Your task to perform on an android device: turn off notifications settings in the gmail app Image 0: 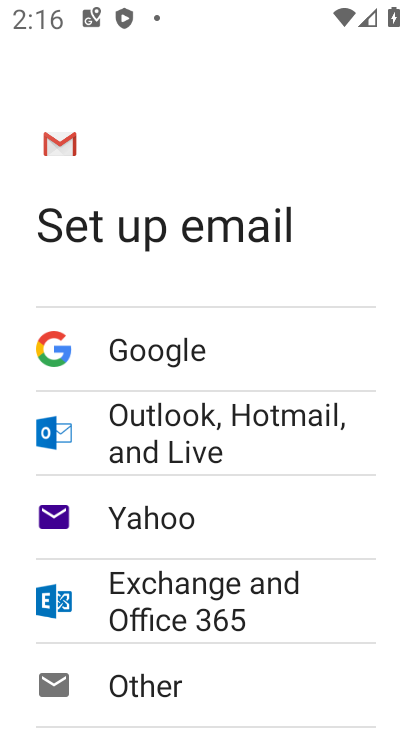
Step 0: press home button
Your task to perform on an android device: turn off notifications settings in the gmail app Image 1: 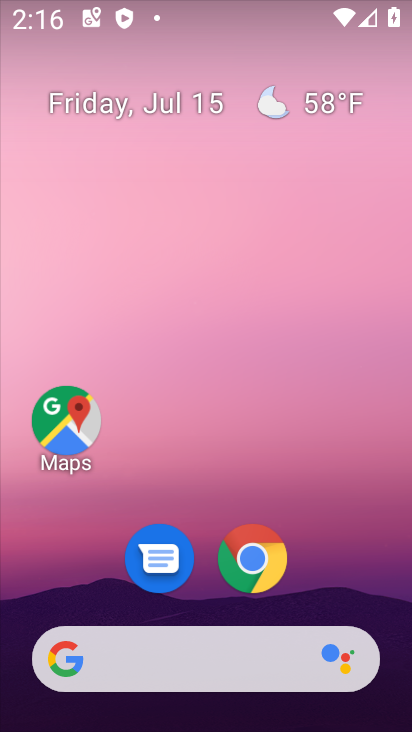
Step 1: drag from (354, 575) to (375, 122)
Your task to perform on an android device: turn off notifications settings in the gmail app Image 2: 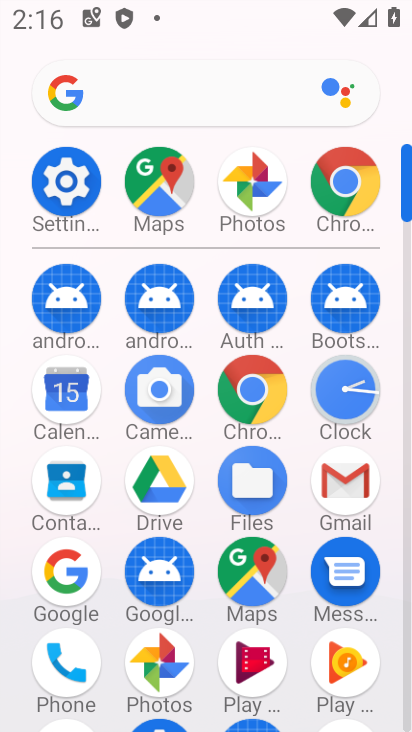
Step 2: click (352, 482)
Your task to perform on an android device: turn off notifications settings in the gmail app Image 3: 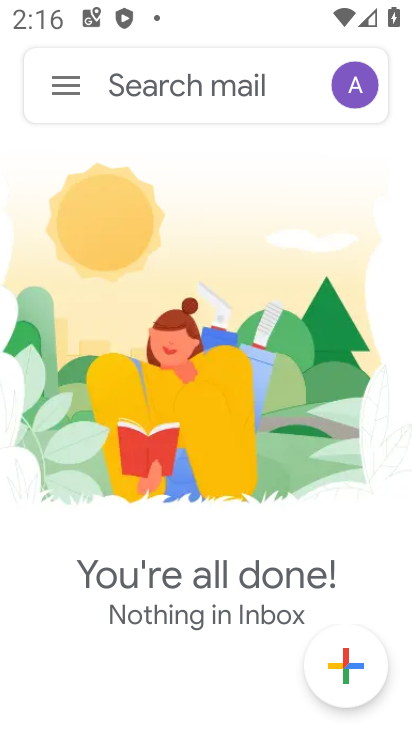
Step 3: click (73, 85)
Your task to perform on an android device: turn off notifications settings in the gmail app Image 4: 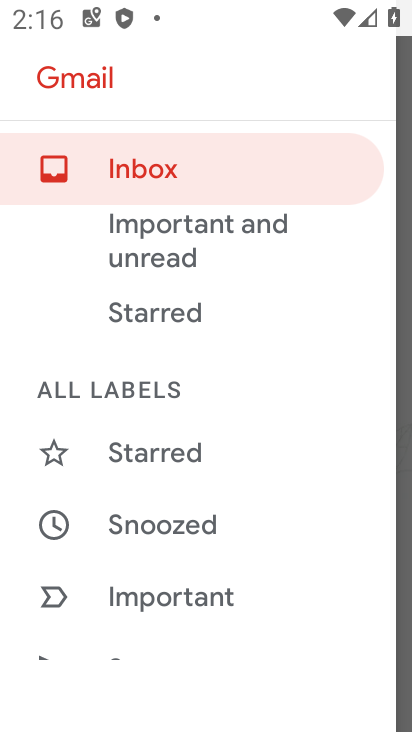
Step 4: drag from (298, 400) to (310, 353)
Your task to perform on an android device: turn off notifications settings in the gmail app Image 5: 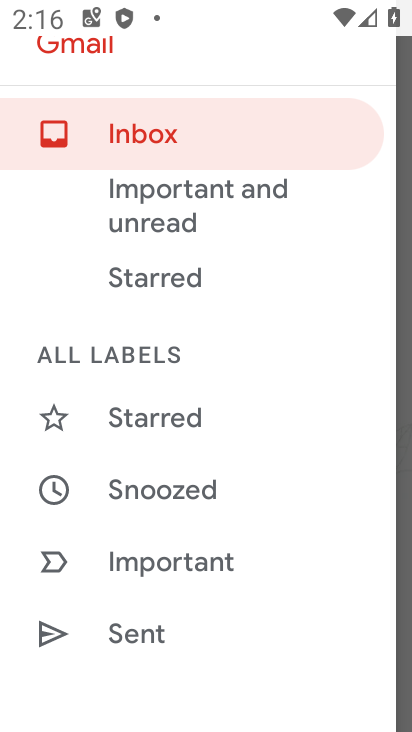
Step 5: drag from (312, 426) to (316, 313)
Your task to perform on an android device: turn off notifications settings in the gmail app Image 6: 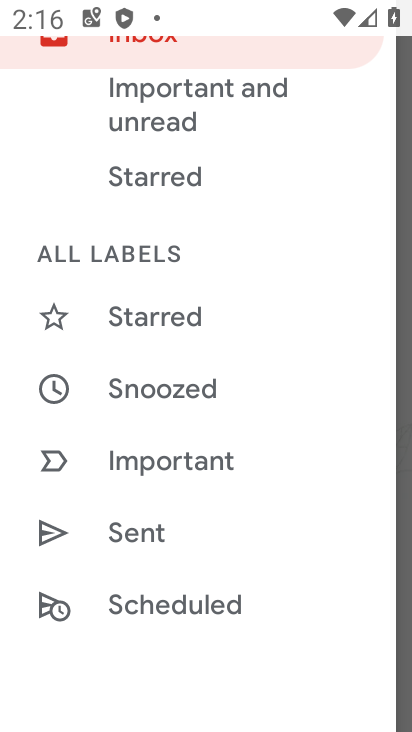
Step 6: drag from (305, 423) to (308, 356)
Your task to perform on an android device: turn off notifications settings in the gmail app Image 7: 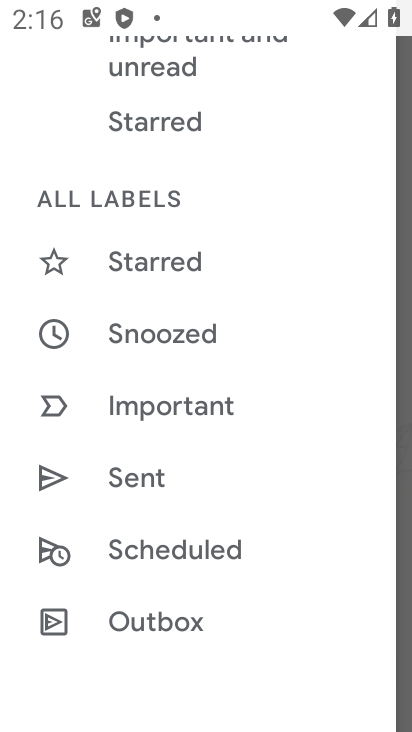
Step 7: drag from (306, 412) to (309, 357)
Your task to perform on an android device: turn off notifications settings in the gmail app Image 8: 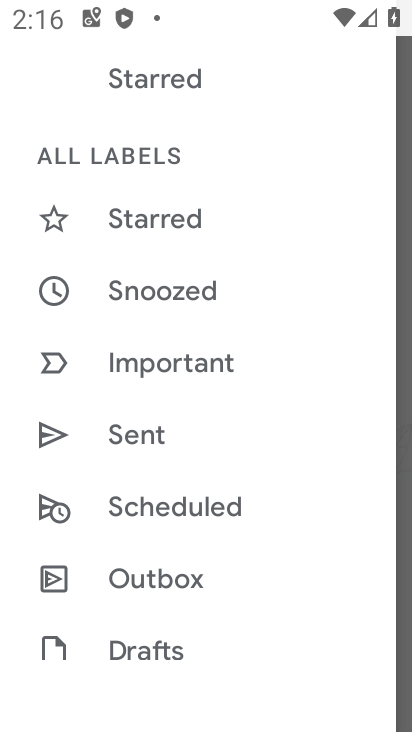
Step 8: drag from (316, 418) to (319, 341)
Your task to perform on an android device: turn off notifications settings in the gmail app Image 9: 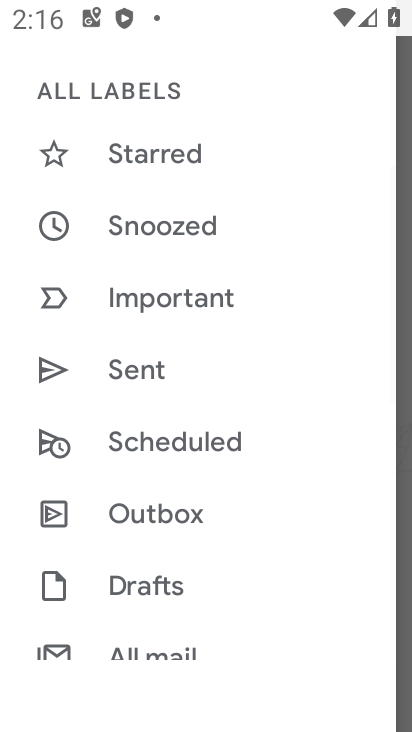
Step 9: drag from (319, 455) to (320, 365)
Your task to perform on an android device: turn off notifications settings in the gmail app Image 10: 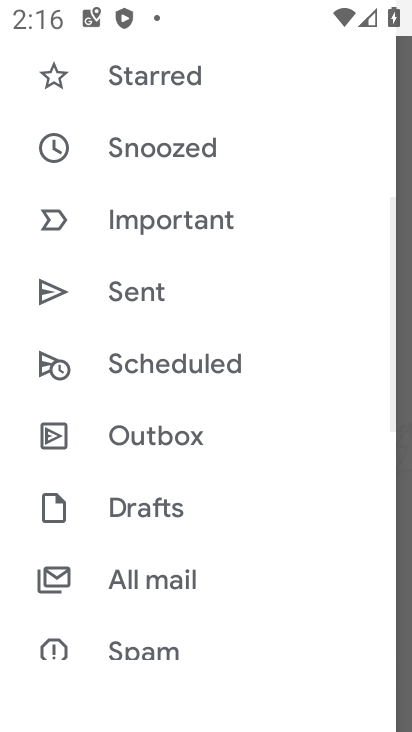
Step 10: drag from (317, 453) to (317, 362)
Your task to perform on an android device: turn off notifications settings in the gmail app Image 11: 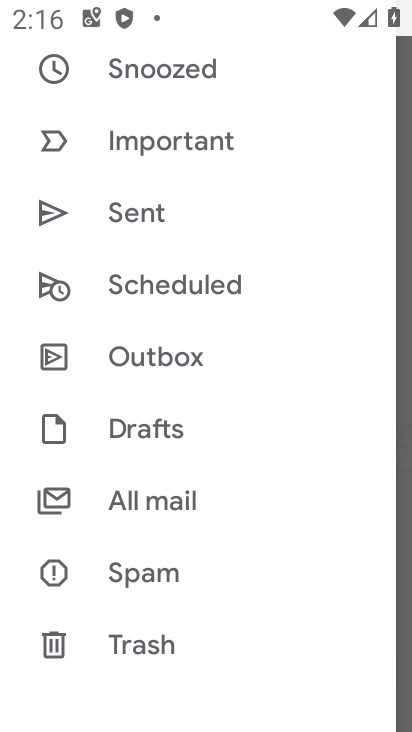
Step 11: drag from (312, 462) to (310, 342)
Your task to perform on an android device: turn off notifications settings in the gmail app Image 12: 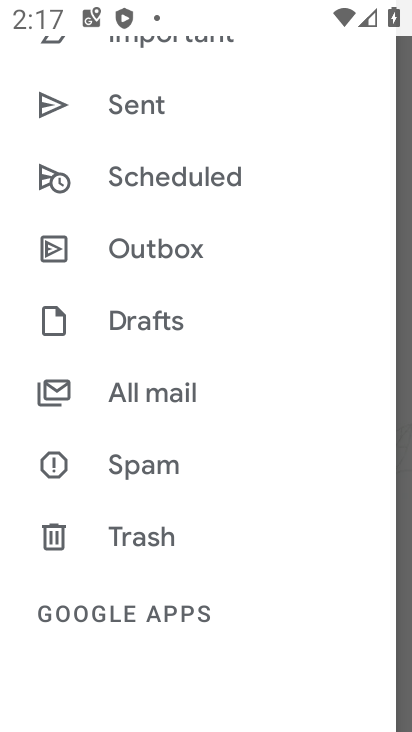
Step 12: drag from (338, 485) to (327, 378)
Your task to perform on an android device: turn off notifications settings in the gmail app Image 13: 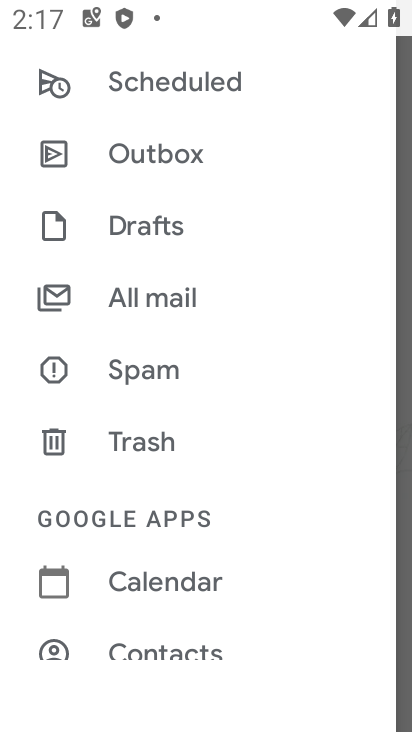
Step 13: drag from (312, 506) to (303, 377)
Your task to perform on an android device: turn off notifications settings in the gmail app Image 14: 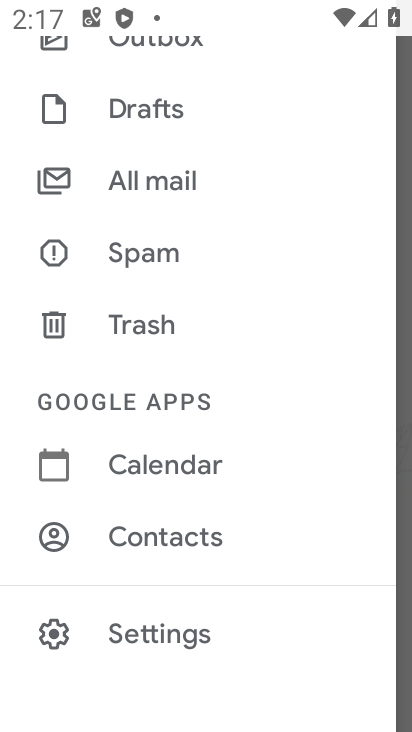
Step 14: drag from (292, 495) to (297, 387)
Your task to perform on an android device: turn off notifications settings in the gmail app Image 15: 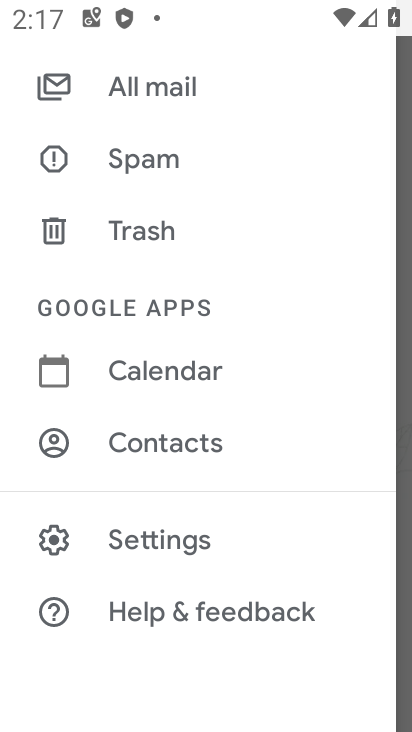
Step 15: click (261, 552)
Your task to perform on an android device: turn off notifications settings in the gmail app Image 16: 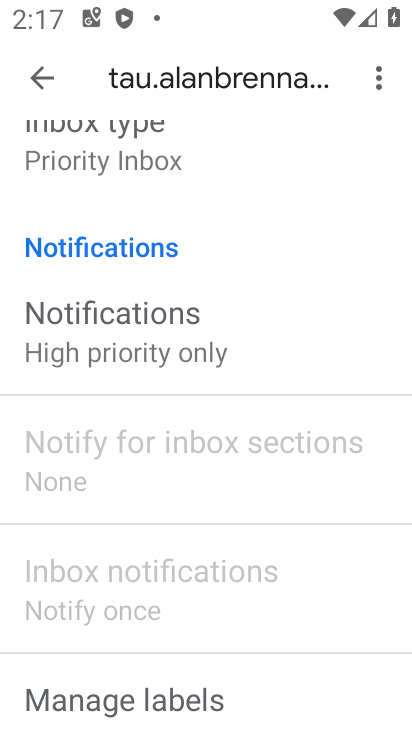
Step 16: drag from (293, 307) to (291, 406)
Your task to perform on an android device: turn off notifications settings in the gmail app Image 17: 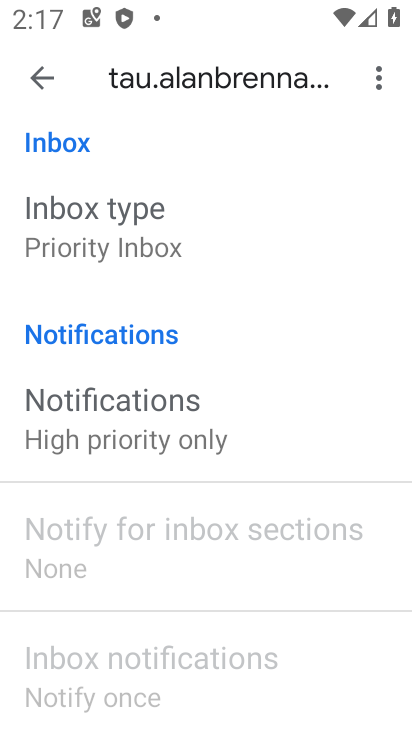
Step 17: drag from (285, 258) to (281, 507)
Your task to perform on an android device: turn off notifications settings in the gmail app Image 18: 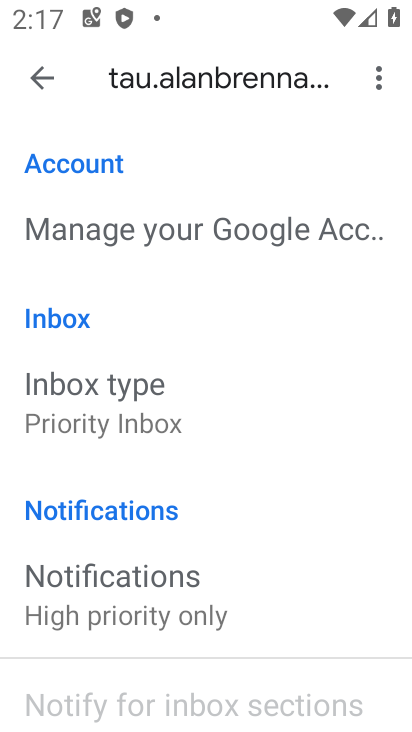
Step 18: drag from (296, 525) to (296, 421)
Your task to perform on an android device: turn off notifications settings in the gmail app Image 19: 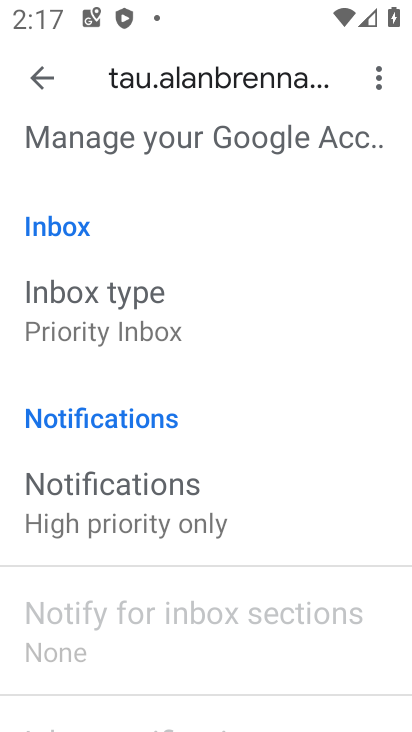
Step 19: drag from (299, 537) to (298, 419)
Your task to perform on an android device: turn off notifications settings in the gmail app Image 20: 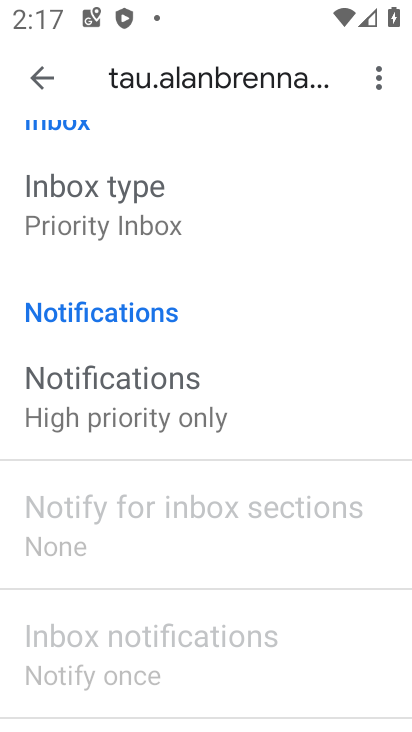
Step 20: drag from (300, 540) to (293, 399)
Your task to perform on an android device: turn off notifications settings in the gmail app Image 21: 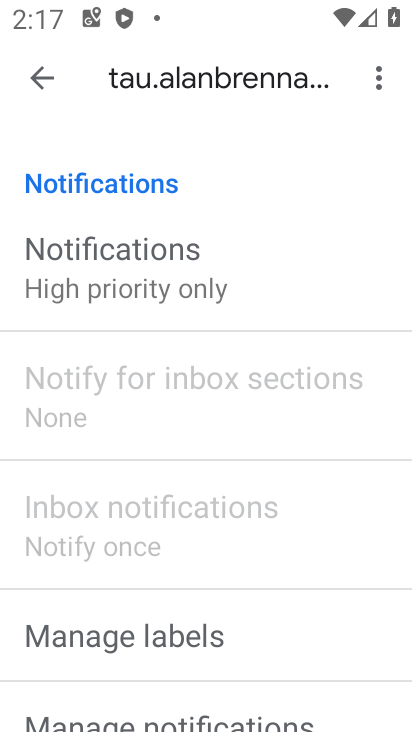
Step 21: drag from (304, 568) to (301, 456)
Your task to perform on an android device: turn off notifications settings in the gmail app Image 22: 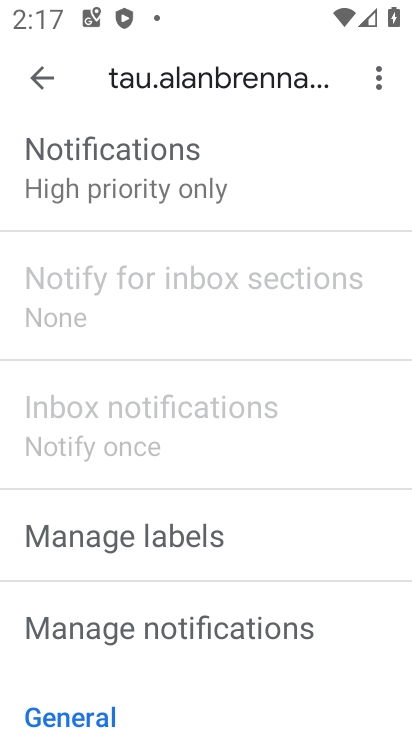
Step 22: drag from (309, 574) to (303, 431)
Your task to perform on an android device: turn off notifications settings in the gmail app Image 23: 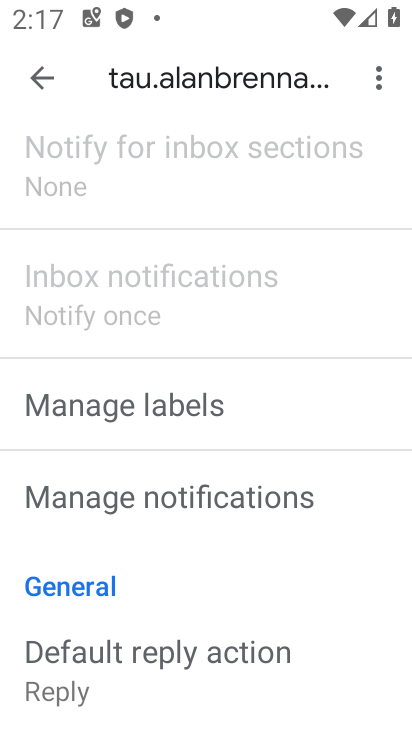
Step 23: click (292, 493)
Your task to perform on an android device: turn off notifications settings in the gmail app Image 24: 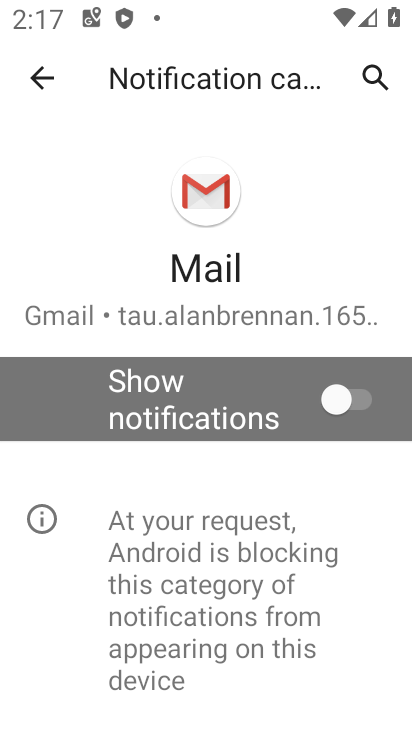
Step 24: task complete